Your task to perform on an android device: Show the shopping cart on target.com. Add "razer blade" to the cart on target.com, then select checkout. Image 0: 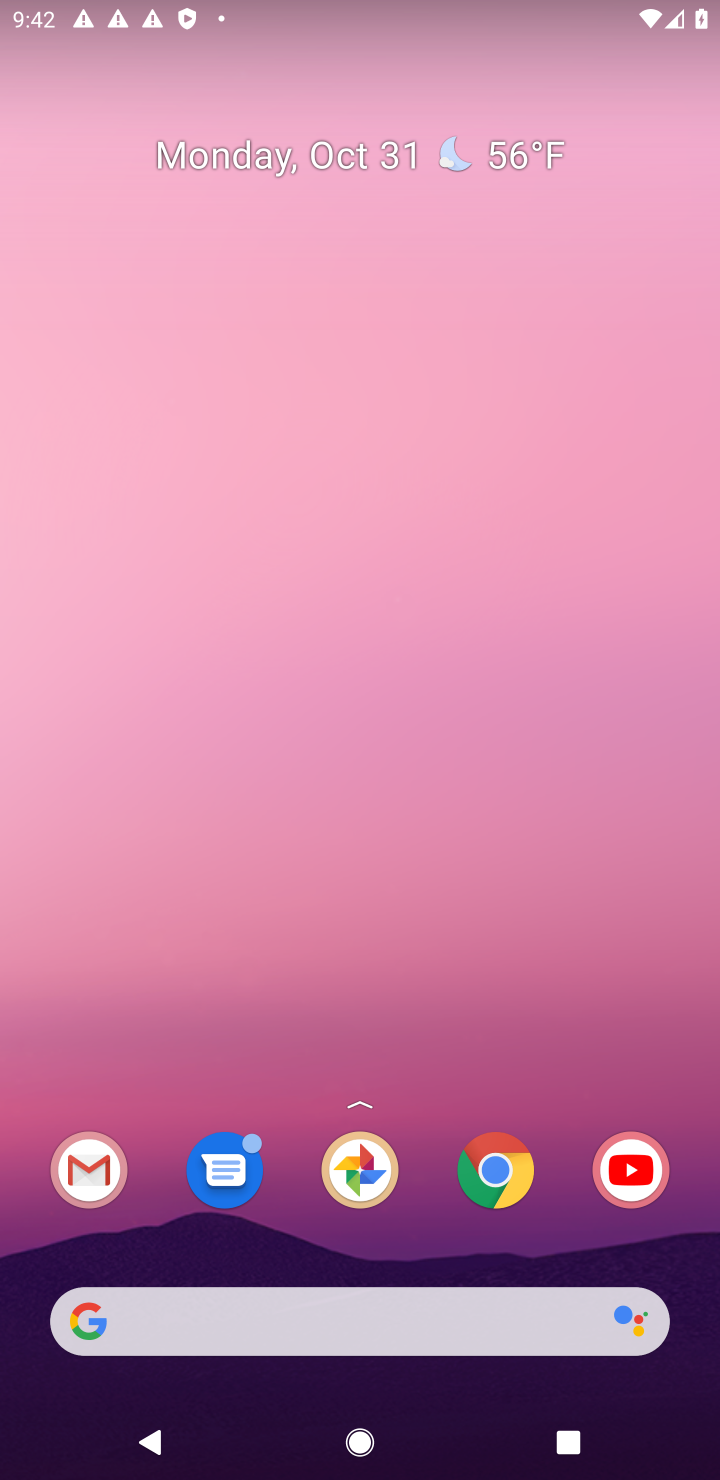
Step 0: drag from (324, 1162) to (324, 372)
Your task to perform on an android device: Show the shopping cart on target.com. Add "razer blade" to the cart on target.com, then select checkout. Image 1: 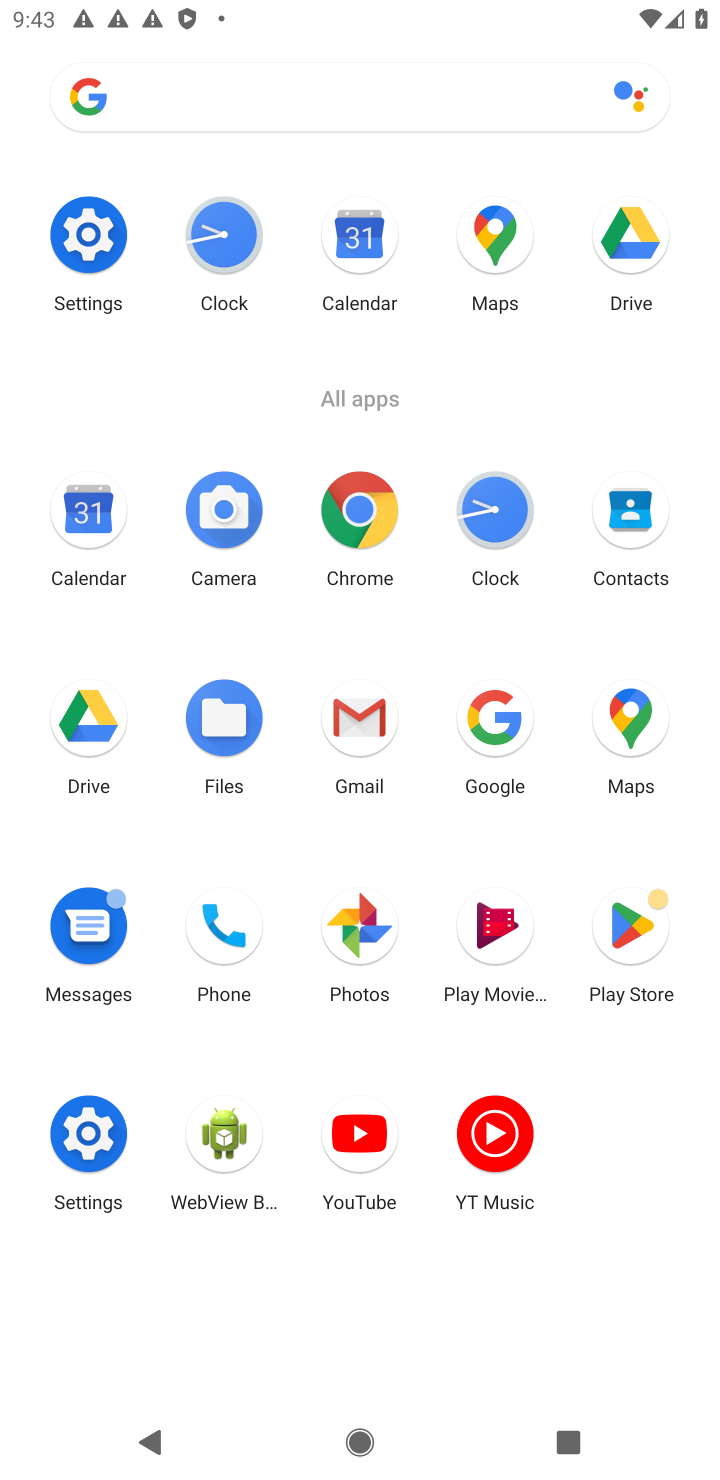
Step 1: click (185, 1289)
Your task to perform on an android device: Show the shopping cart on target.com. Add "razer blade" to the cart on target.com, then select checkout. Image 2: 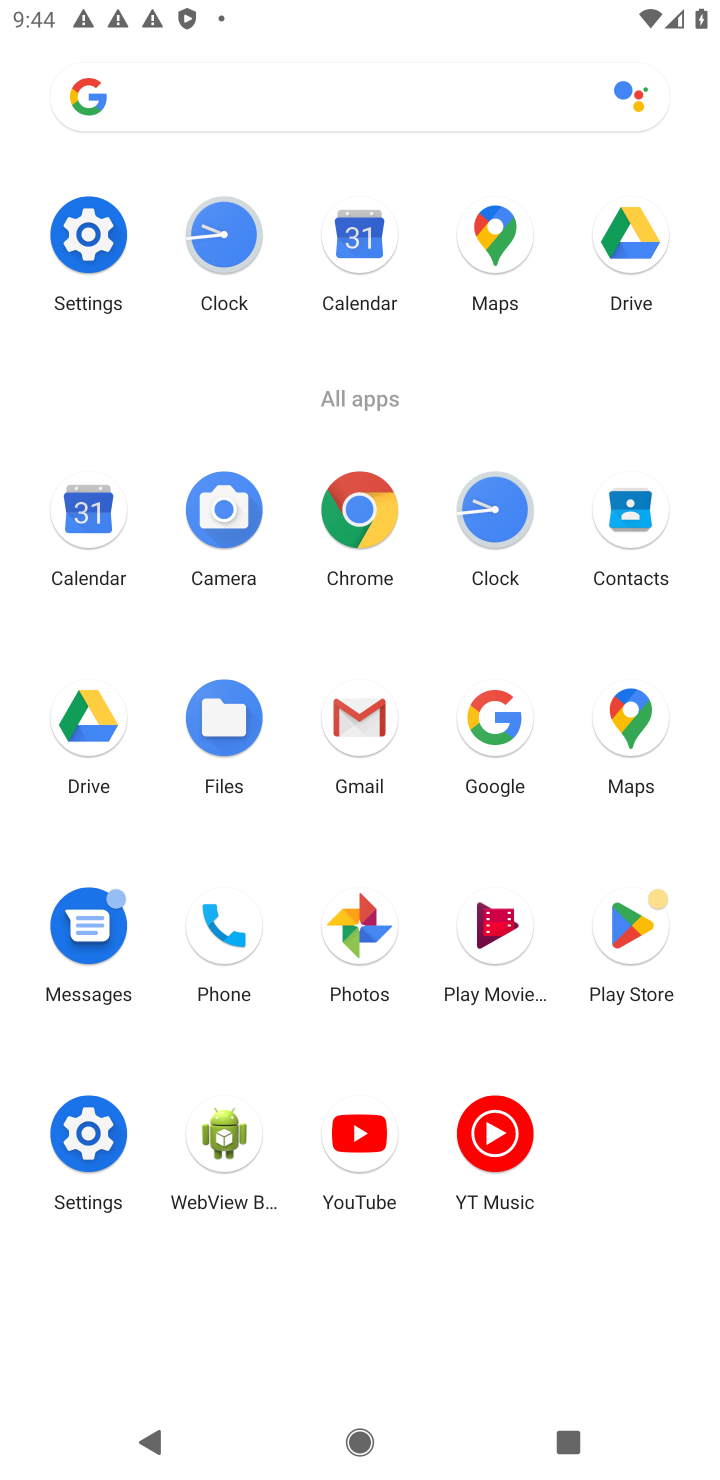
Step 2: click (474, 741)
Your task to perform on an android device: Show the shopping cart on target.com. Add "razer blade" to the cart on target.com, then select checkout. Image 3: 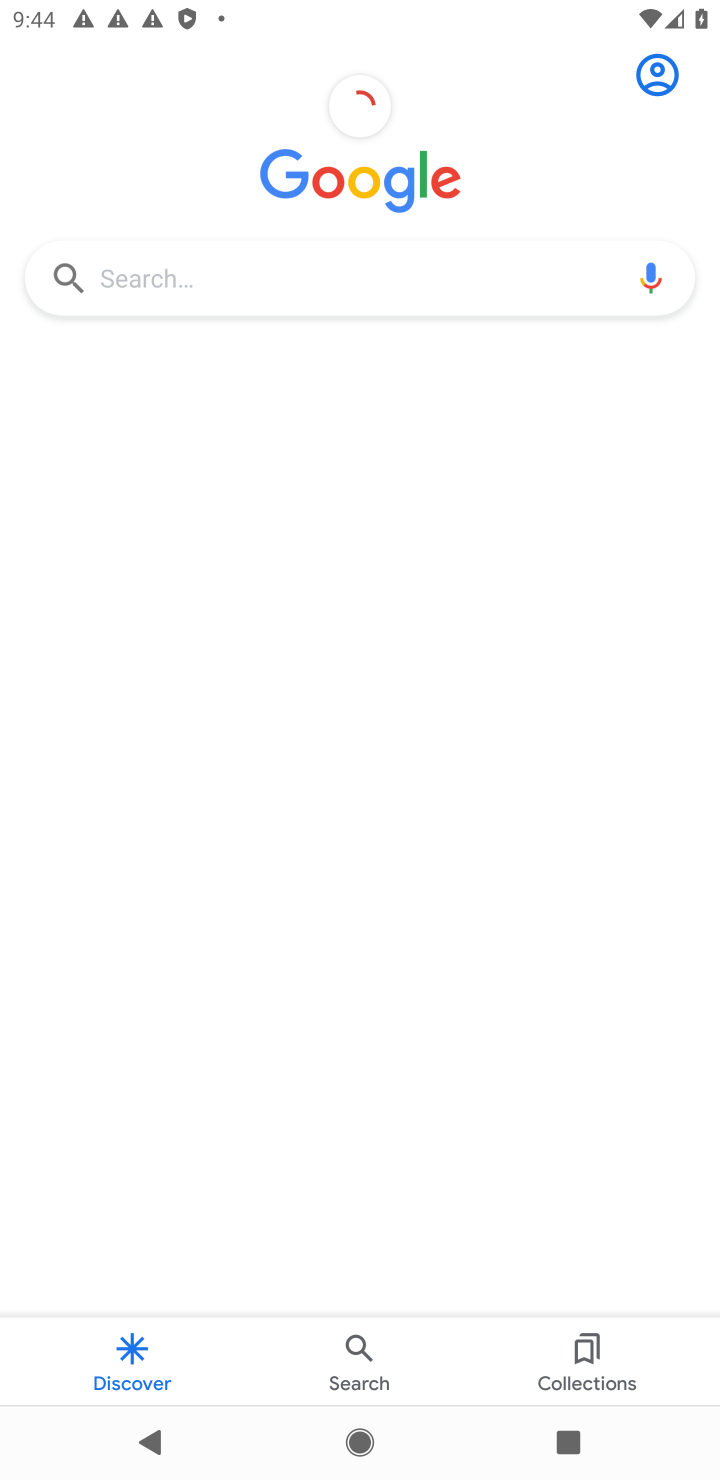
Step 3: click (235, 285)
Your task to perform on an android device: Show the shopping cart on target.com. Add "razer blade" to the cart on target.com, then select checkout. Image 4: 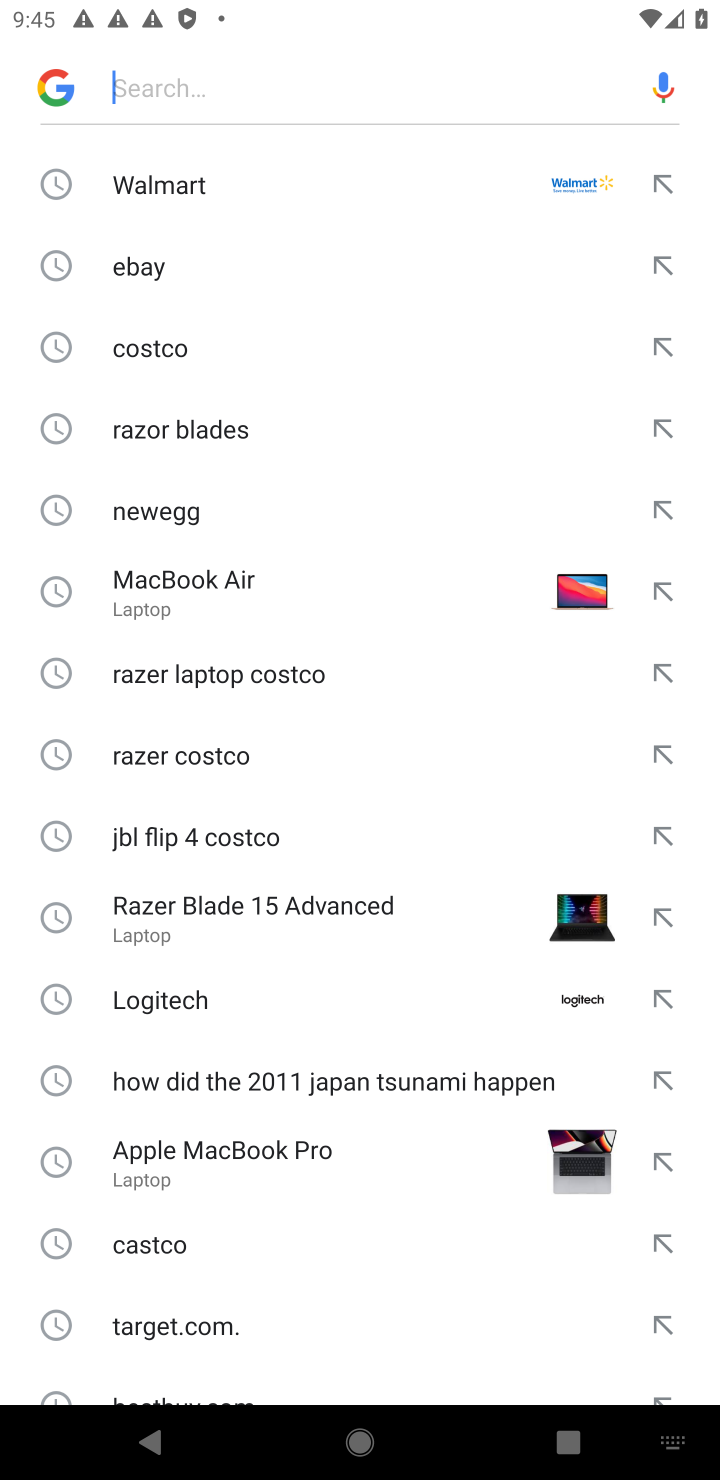
Step 4: type "target.com,"
Your task to perform on an android device: Show the shopping cart on target.com. Add "razer blade" to the cart on target.com, then select checkout. Image 5: 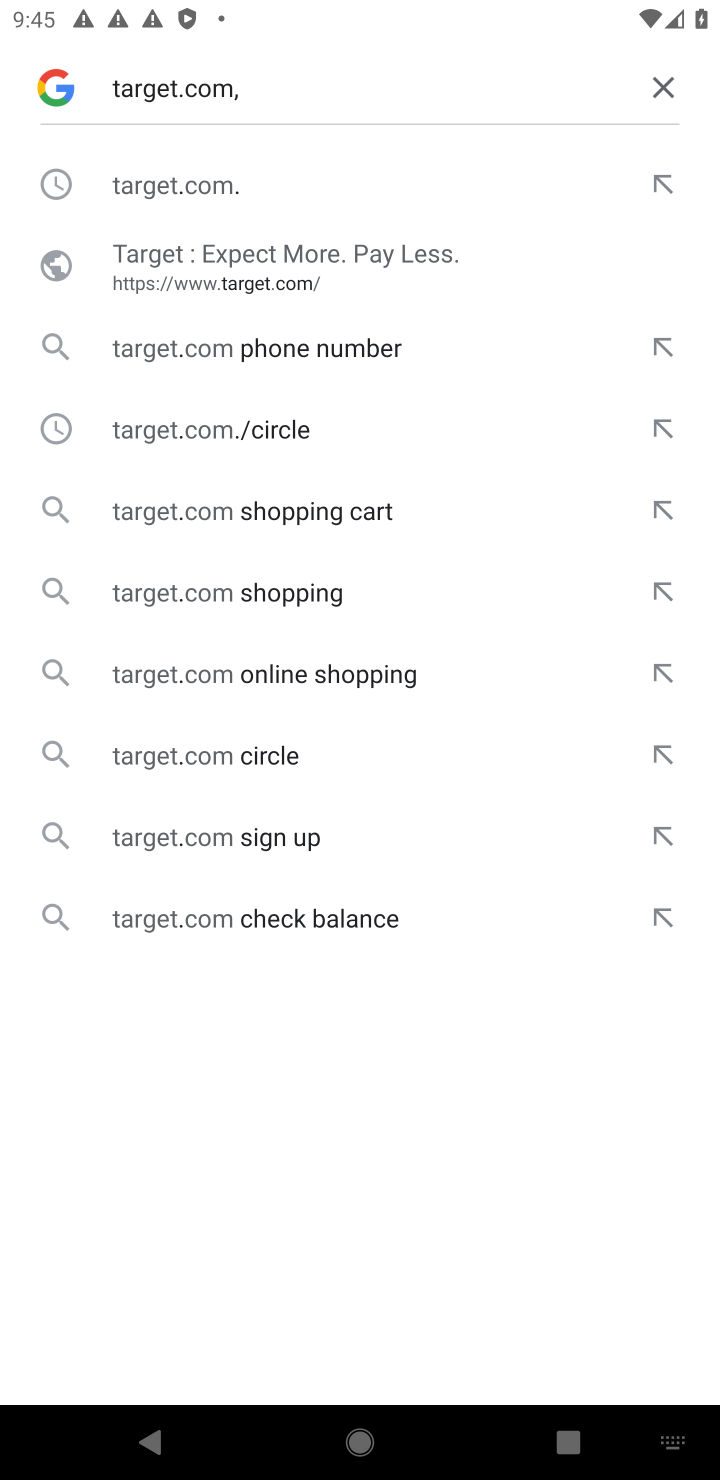
Step 5: click (189, 175)
Your task to perform on an android device: Show the shopping cart on target.com. Add "razer blade" to the cart on target.com, then select checkout. Image 6: 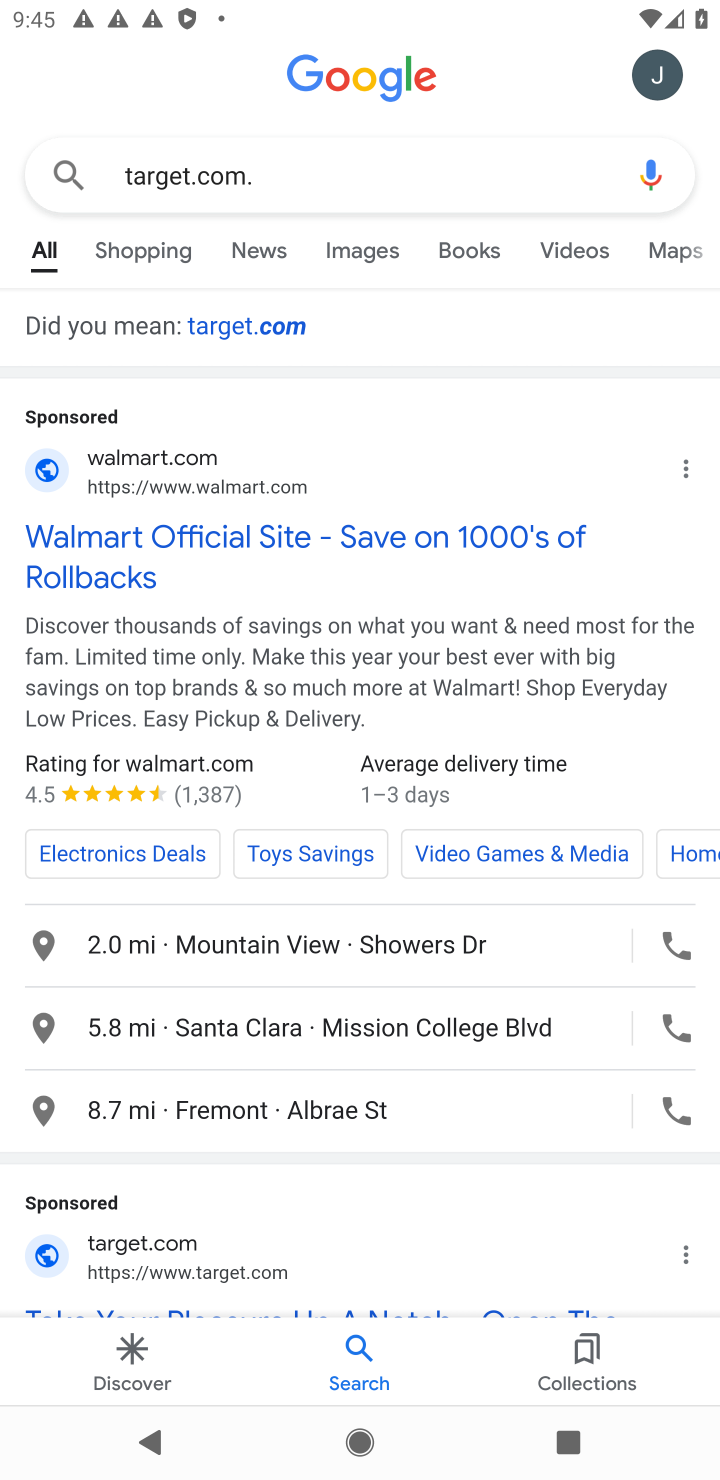
Step 6: click (200, 1260)
Your task to perform on an android device: Show the shopping cart on target.com. Add "razer blade" to the cart on target.com, then select checkout. Image 7: 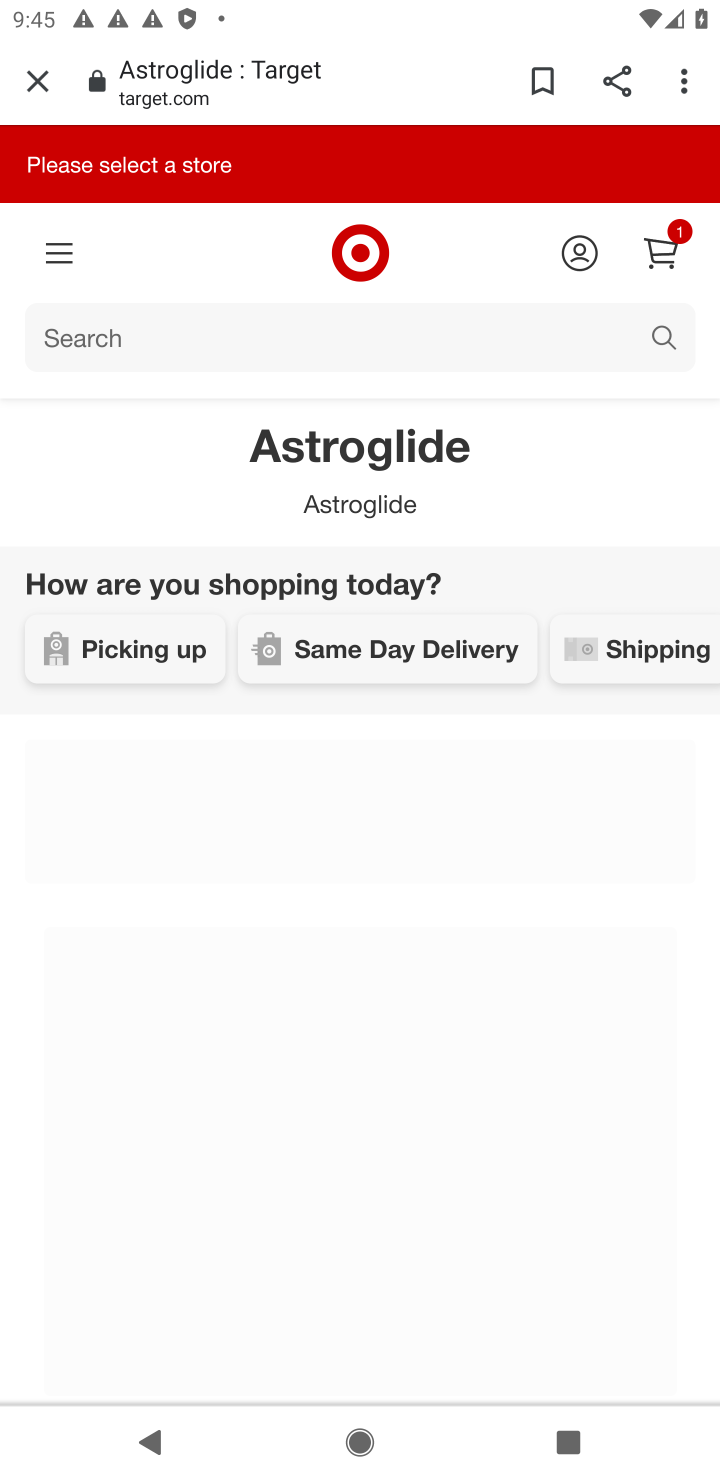
Step 7: click (439, 347)
Your task to perform on an android device: Show the shopping cart on target.com. Add "razer blade" to the cart on target.com, then select checkout. Image 8: 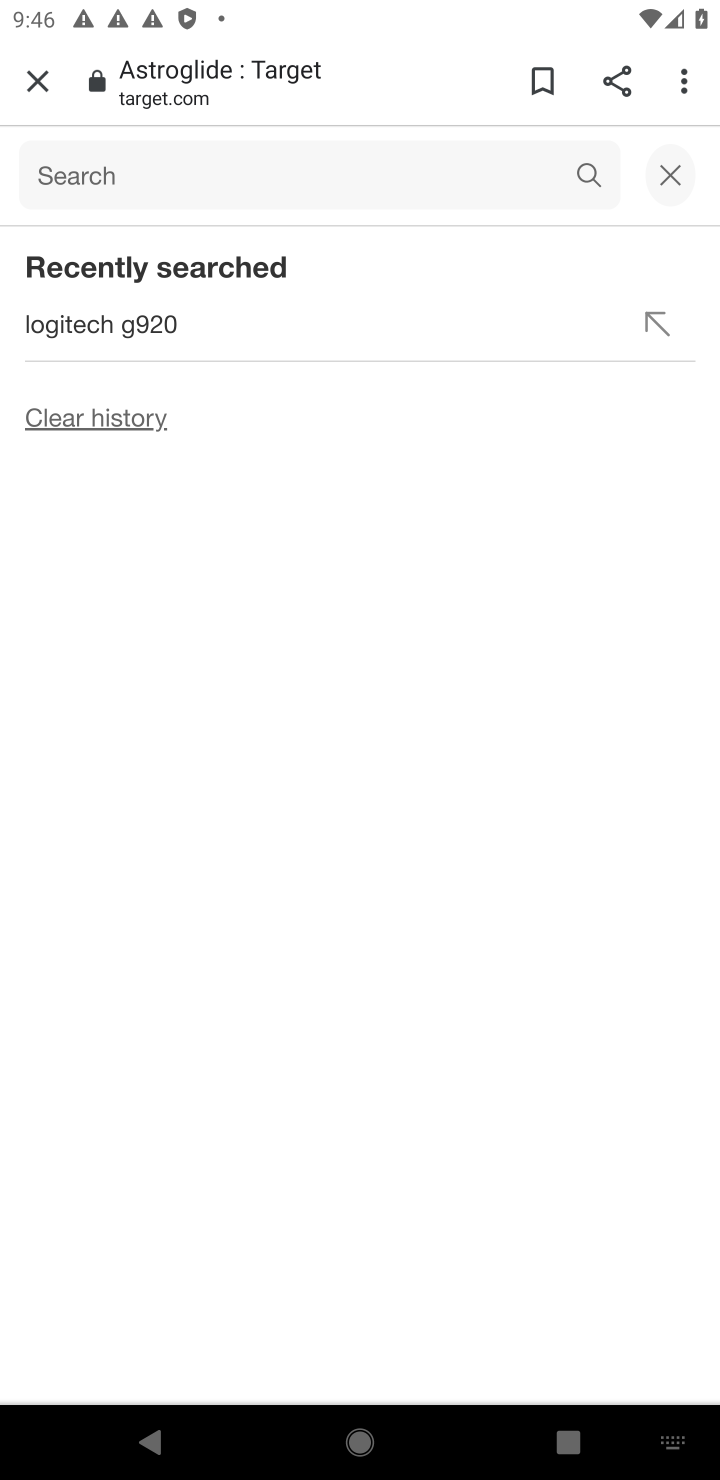
Step 8: type ""razer blade""
Your task to perform on an android device: Show the shopping cart on target.com. Add "razer blade" to the cart on target.com, then select checkout. Image 9: 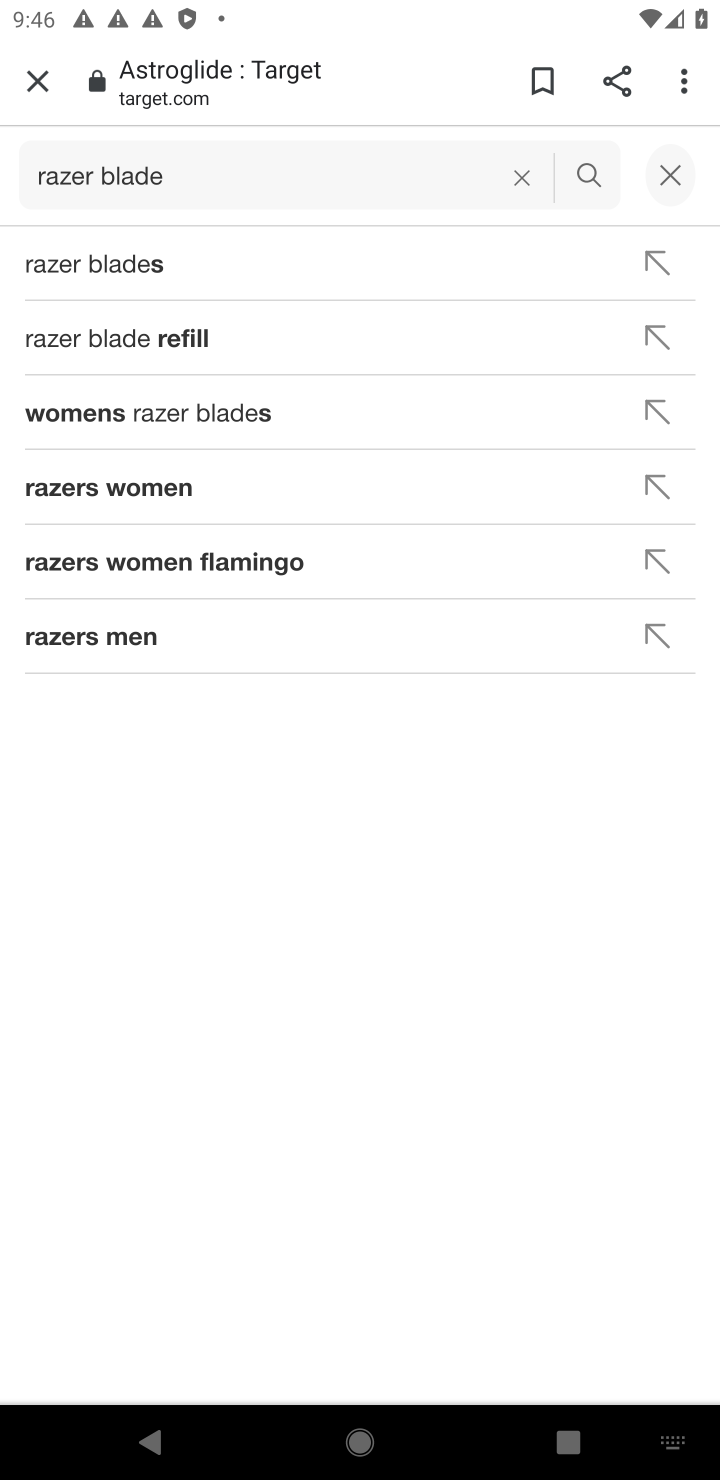
Step 9: click (107, 275)
Your task to perform on an android device: Show the shopping cart on target.com. Add "razer blade" to the cart on target.com, then select checkout. Image 10: 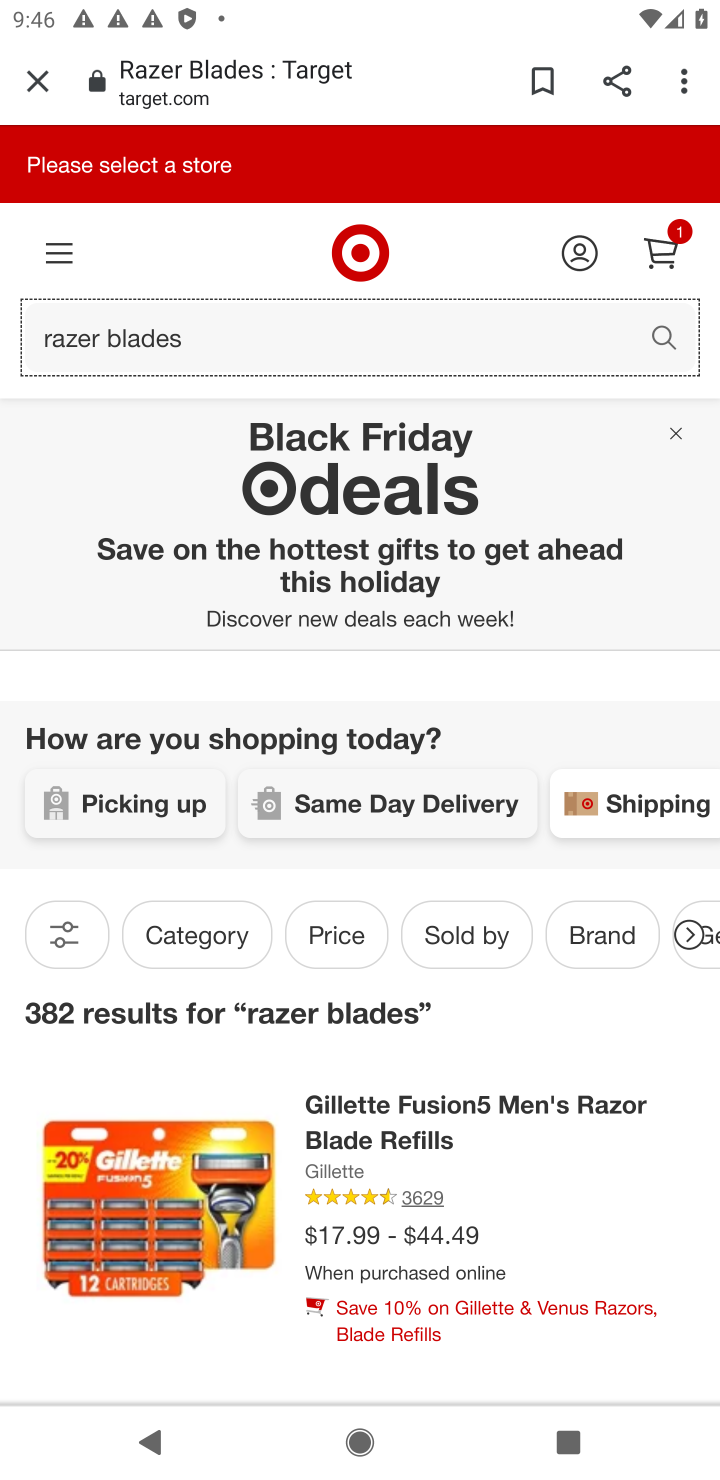
Step 10: click (415, 808)
Your task to perform on an android device: Show the shopping cart on target.com. Add "razer blade" to the cart on target.com, then select checkout. Image 11: 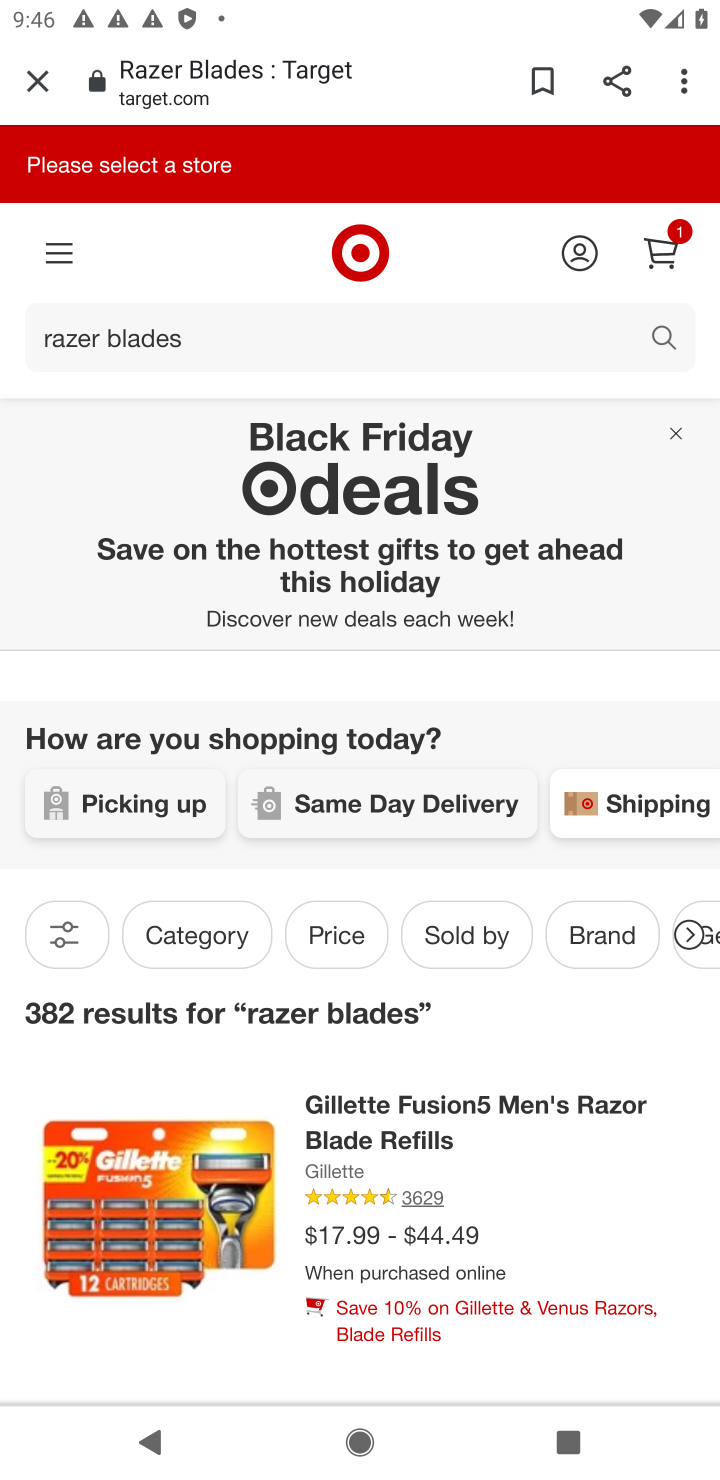
Step 11: click (413, 1175)
Your task to perform on an android device: Show the shopping cart on target.com. Add "razer blade" to the cart on target.com, then select checkout. Image 12: 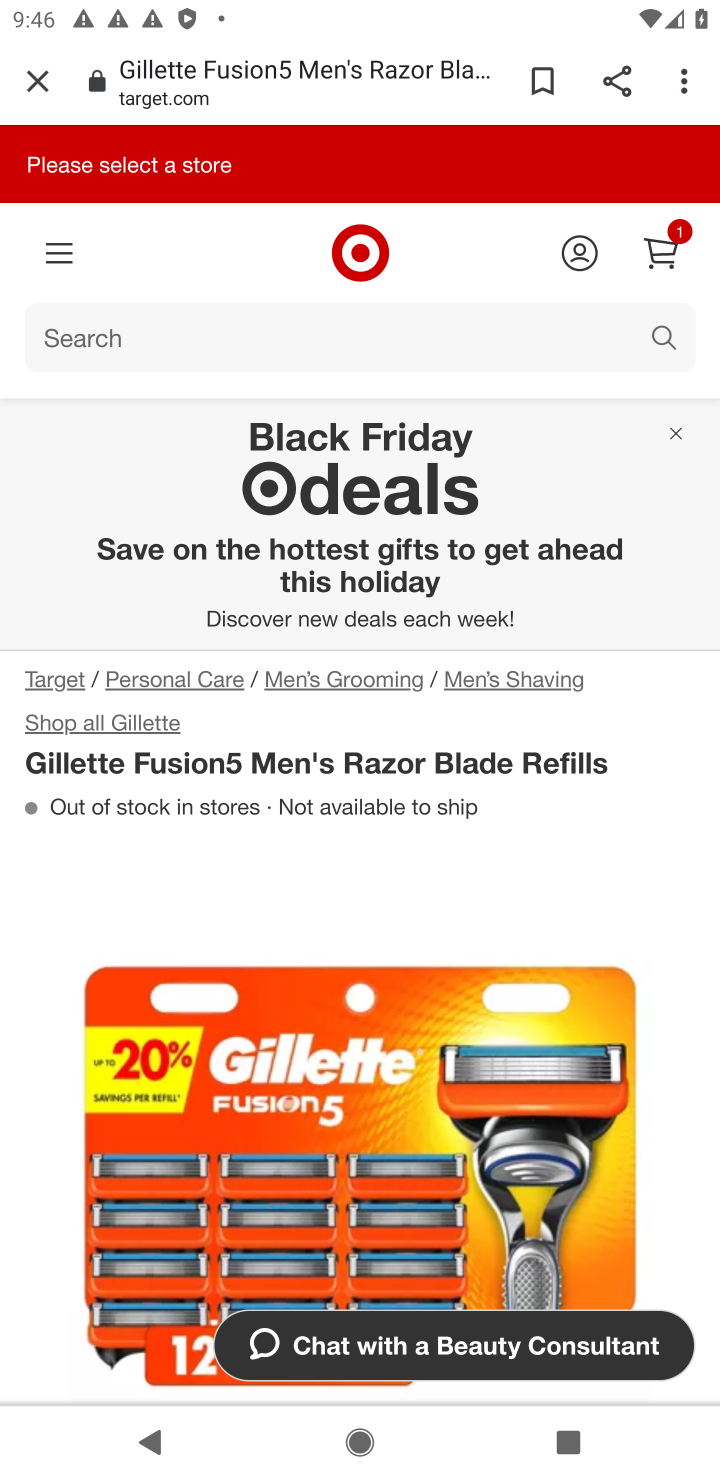
Step 12: drag from (475, 1151) to (505, 705)
Your task to perform on an android device: Show the shopping cart on target.com. Add "razer blade" to the cart on target.com, then select checkout. Image 13: 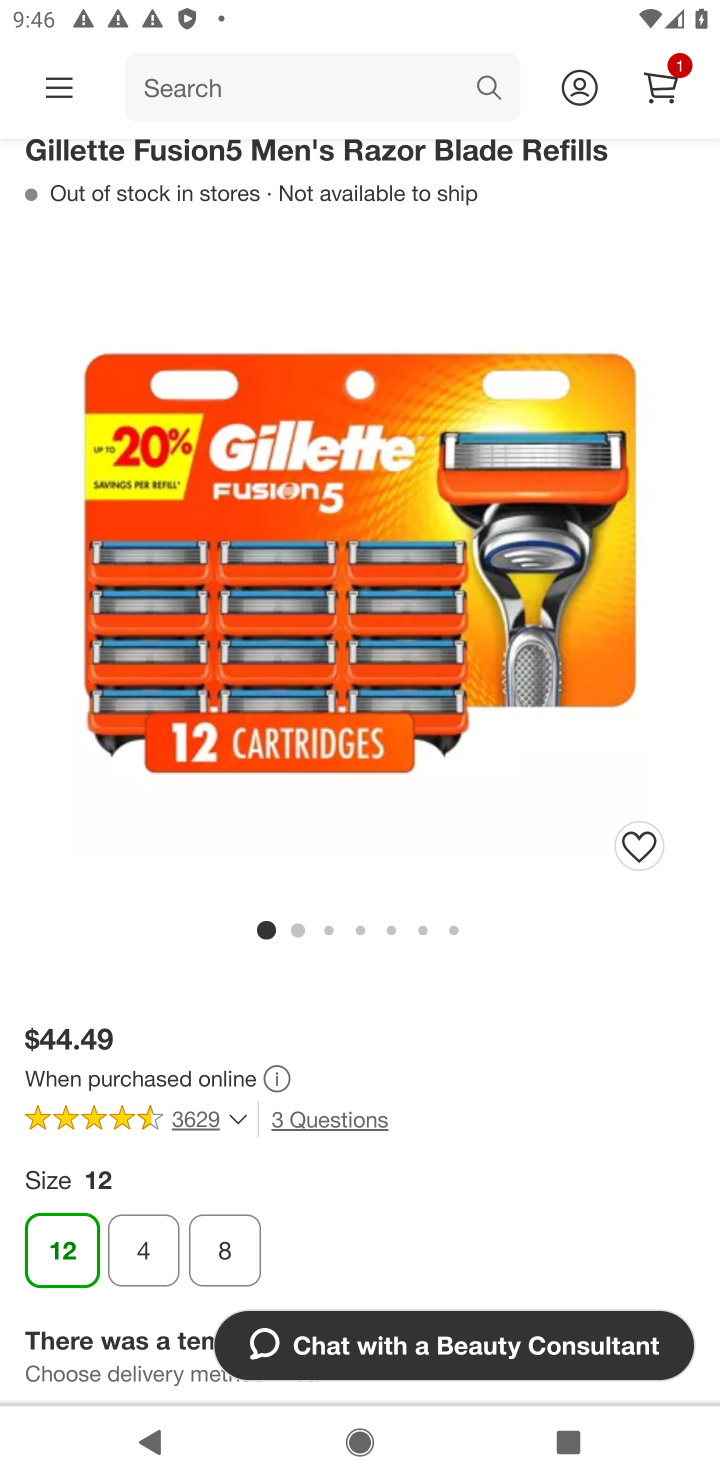
Step 13: click (527, 361)
Your task to perform on an android device: Show the shopping cart on target.com. Add "razer blade" to the cart on target.com, then select checkout. Image 14: 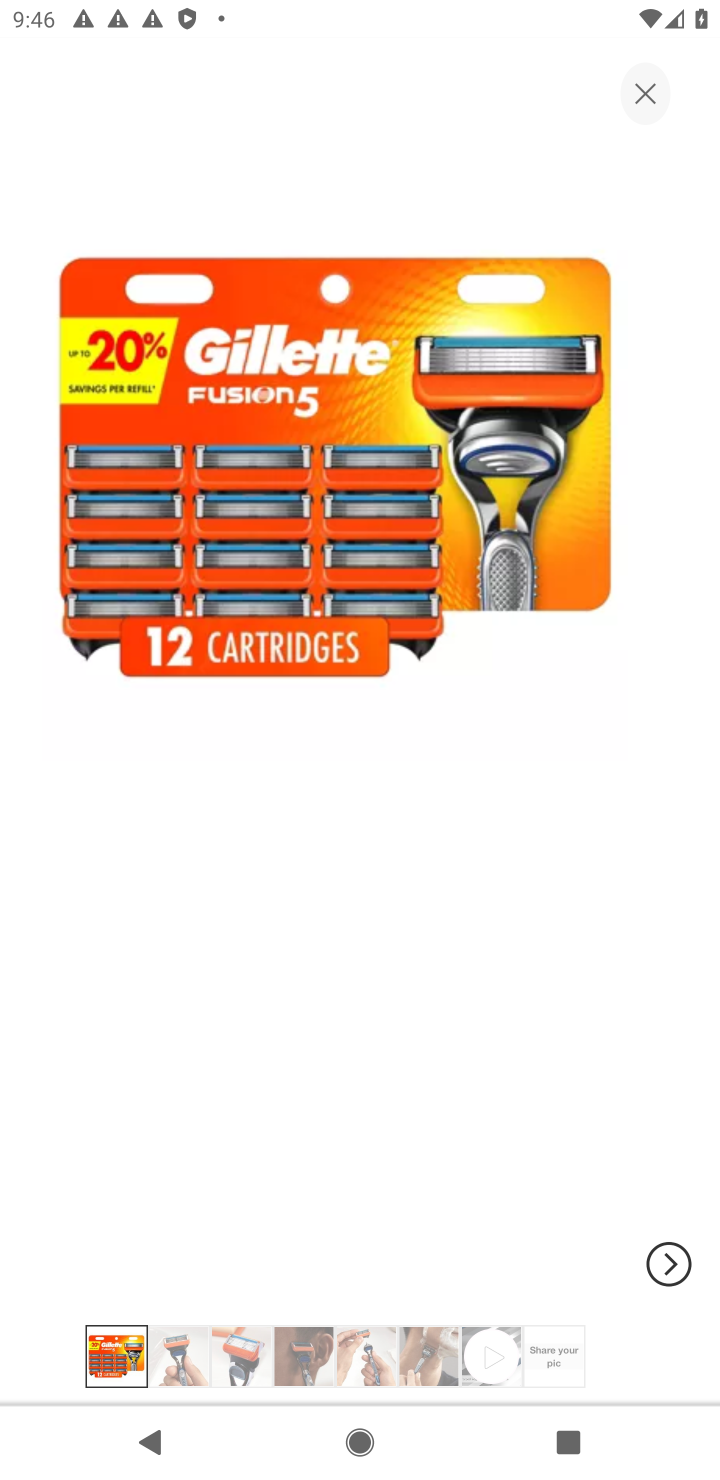
Step 14: click (644, 84)
Your task to perform on an android device: Show the shopping cart on target.com. Add "razer blade" to the cart on target.com, then select checkout. Image 15: 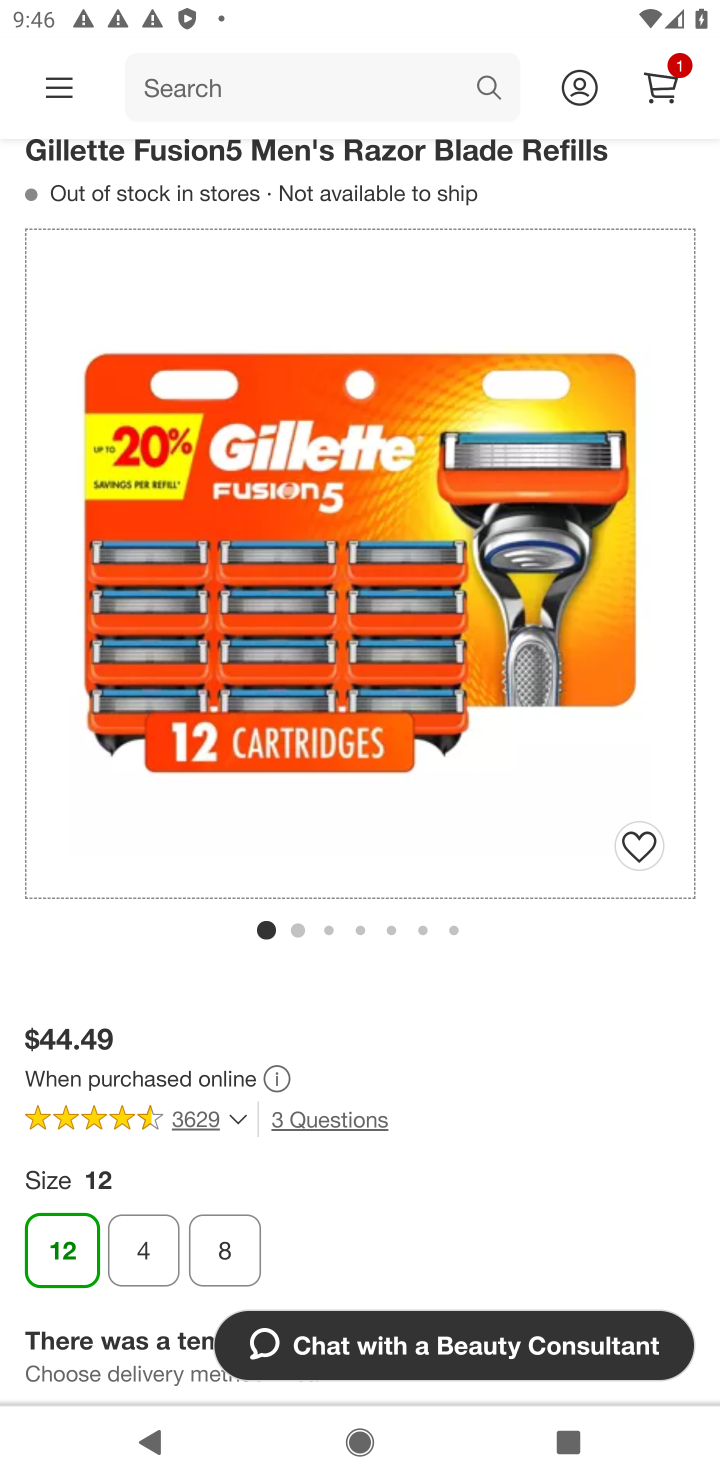
Step 15: drag from (534, 909) to (584, 565)
Your task to perform on an android device: Show the shopping cart on target.com. Add "razer blade" to the cart on target.com, then select checkout. Image 16: 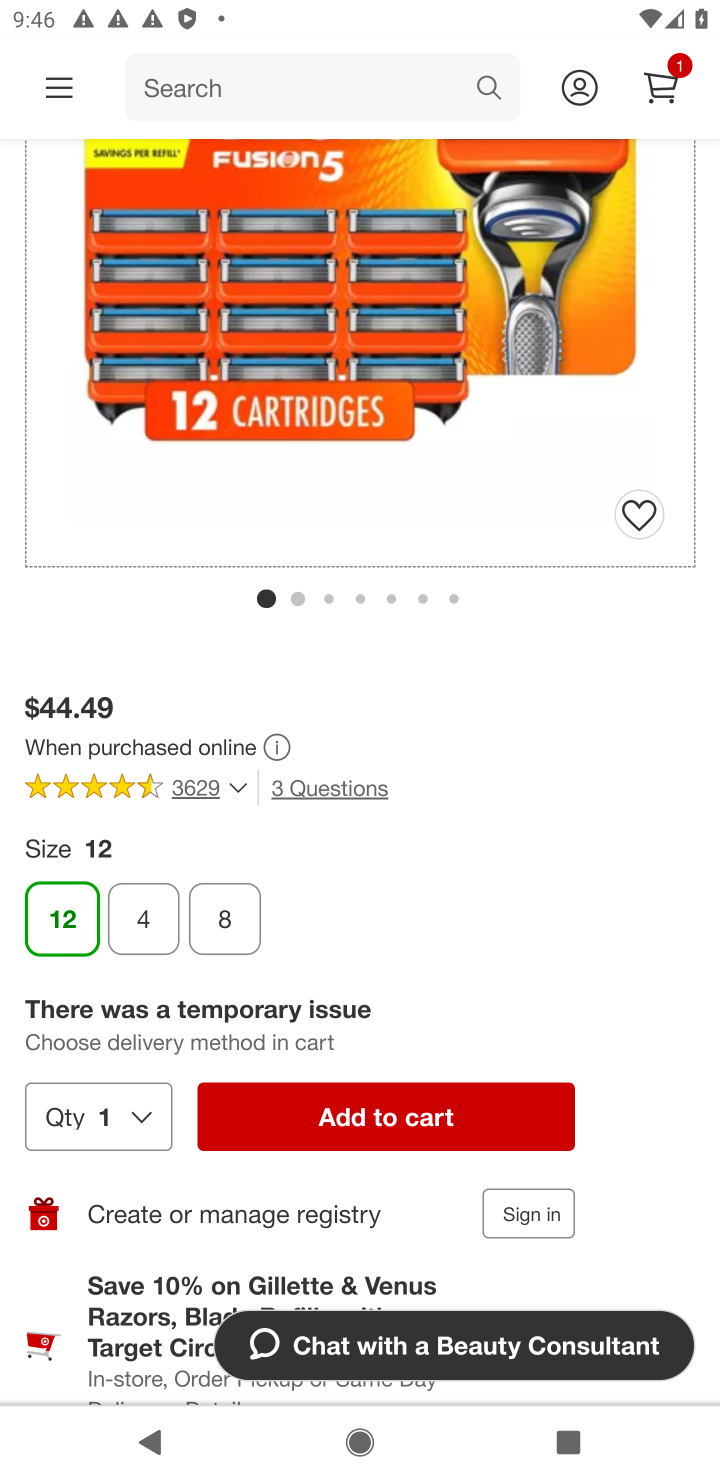
Step 16: click (375, 1119)
Your task to perform on an android device: Show the shopping cart on target.com. Add "razer blade" to the cart on target.com, then select checkout. Image 17: 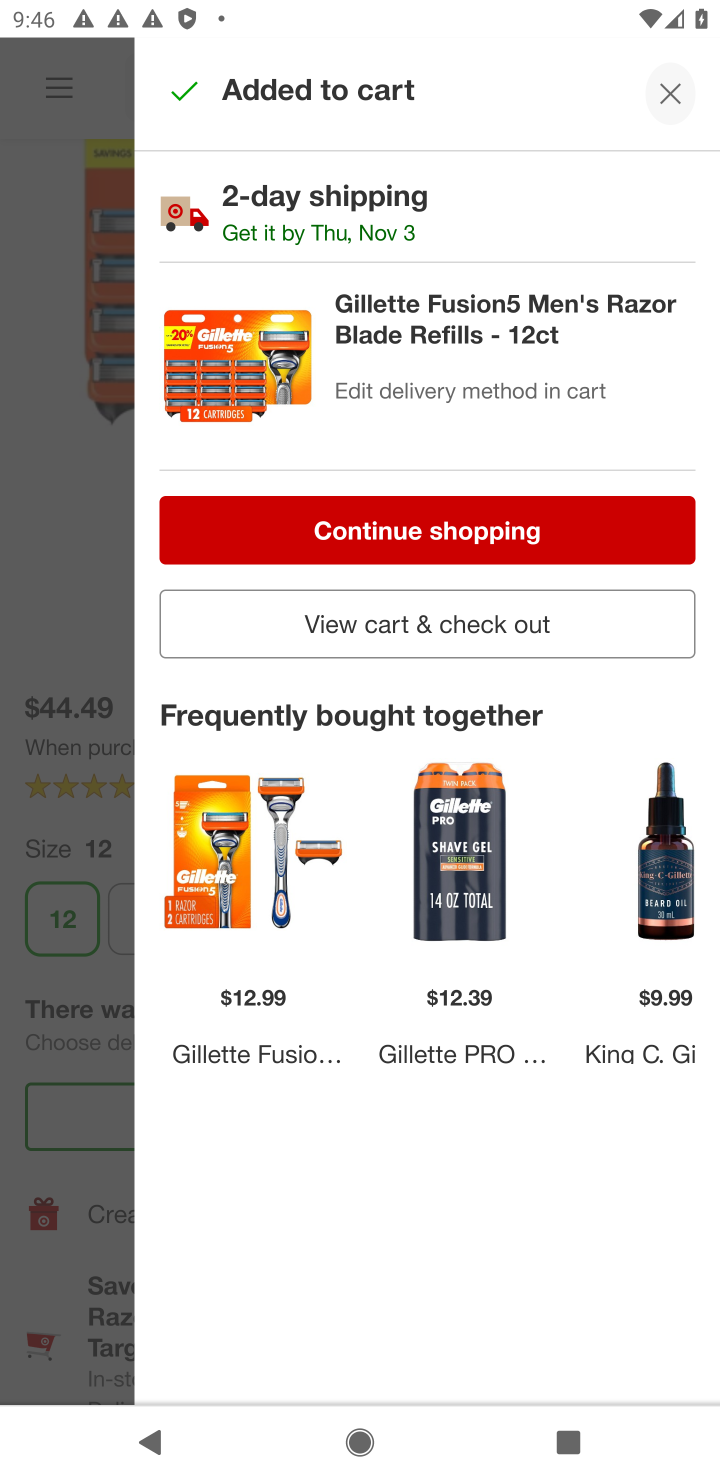
Step 17: click (470, 627)
Your task to perform on an android device: Show the shopping cart on target.com. Add "razer blade" to the cart on target.com, then select checkout. Image 18: 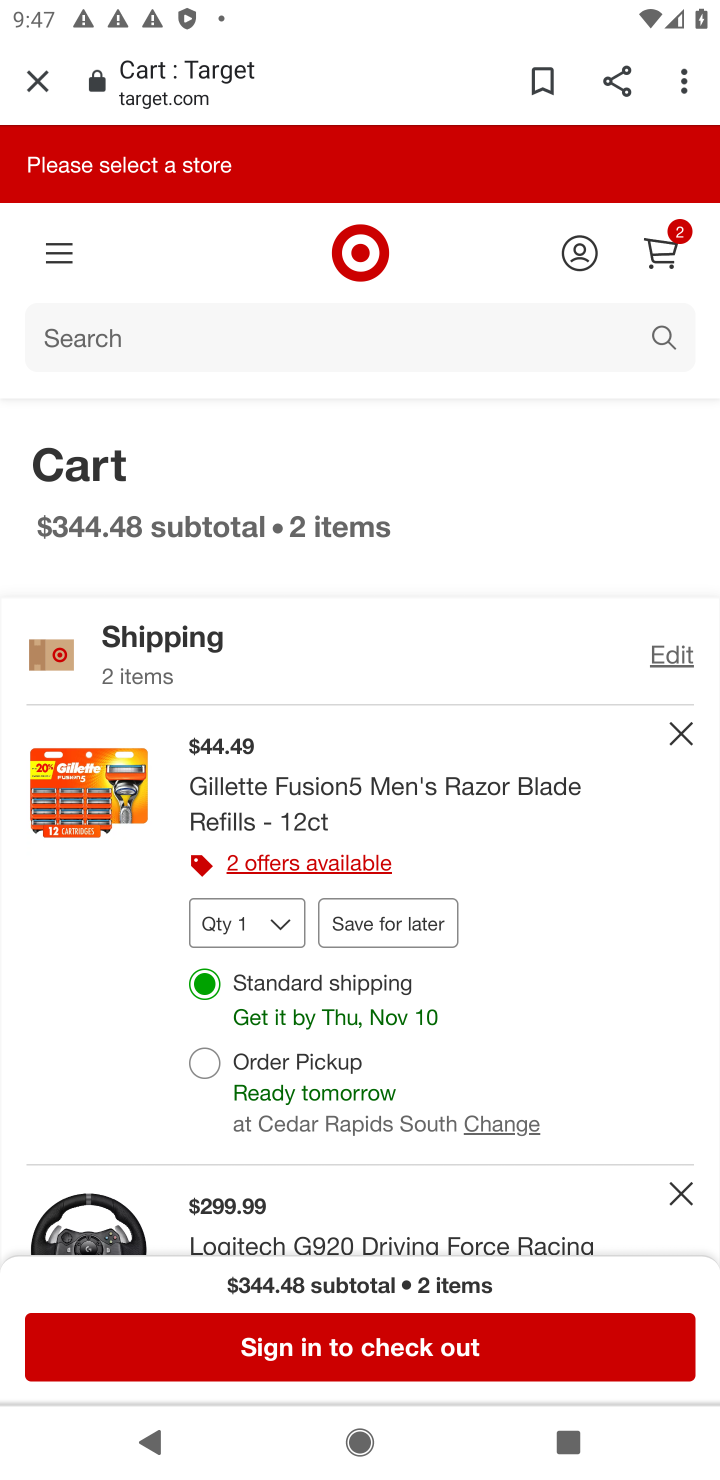
Step 18: task complete